Your task to perform on an android device: toggle airplane mode Image 0: 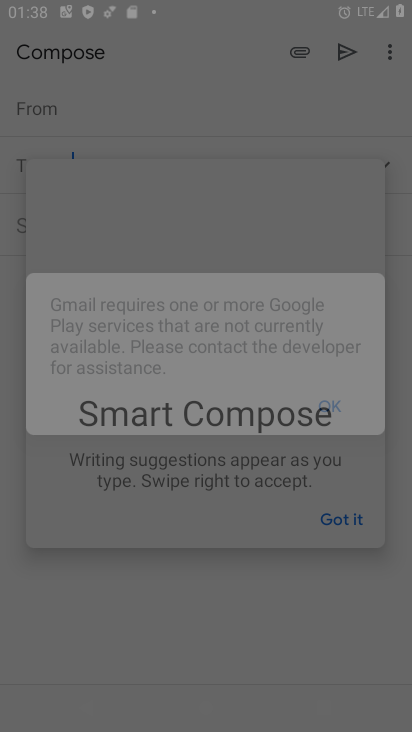
Step 0: drag from (258, 551) to (141, 67)
Your task to perform on an android device: toggle airplane mode Image 1: 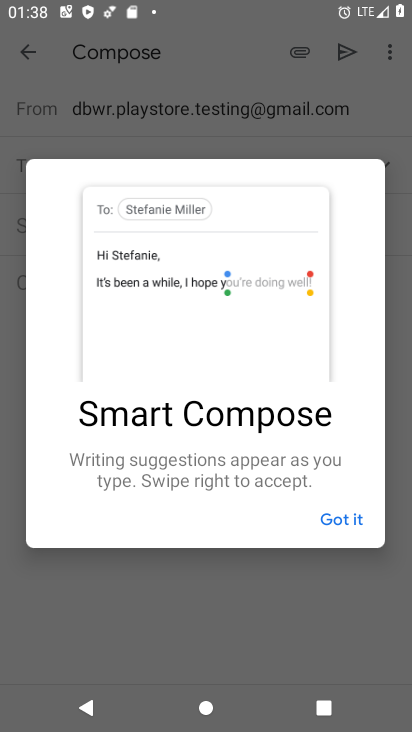
Step 1: press home button
Your task to perform on an android device: toggle airplane mode Image 2: 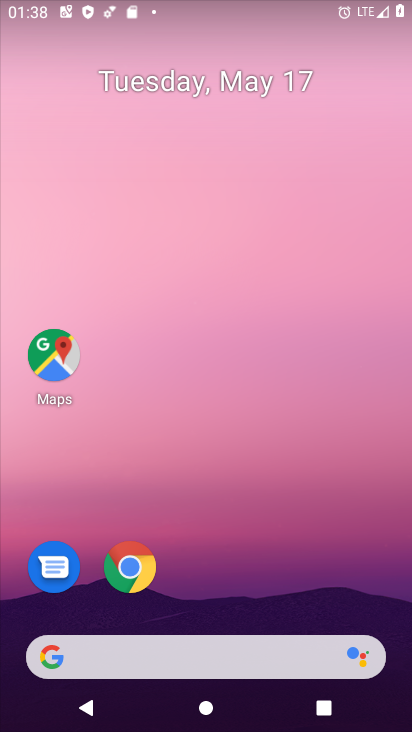
Step 2: drag from (240, 567) to (127, 99)
Your task to perform on an android device: toggle airplane mode Image 3: 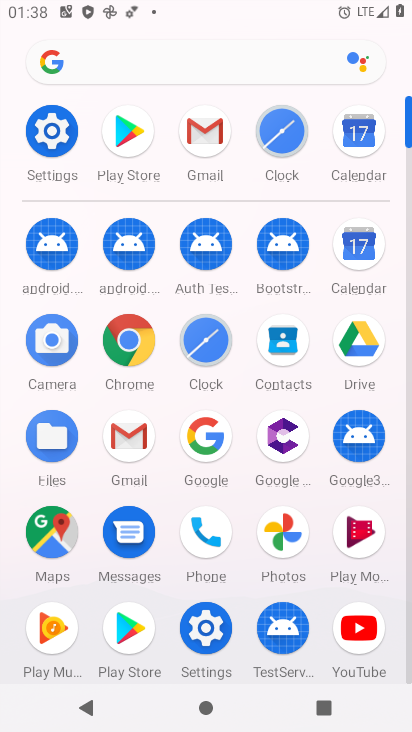
Step 3: click (41, 132)
Your task to perform on an android device: toggle airplane mode Image 4: 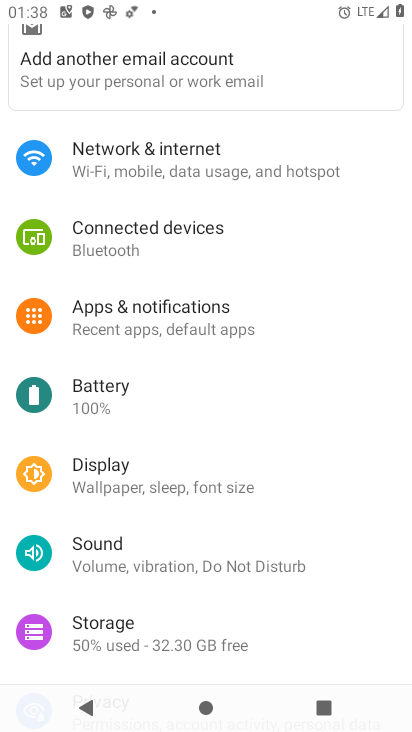
Step 4: click (163, 145)
Your task to perform on an android device: toggle airplane mode Image 5: 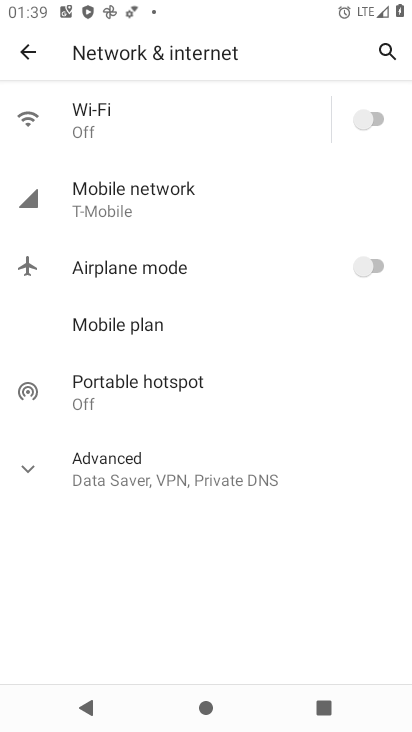
Step 5: click (353, 251)
Your task to perform on an android device: toggle airplane mode Image 6: 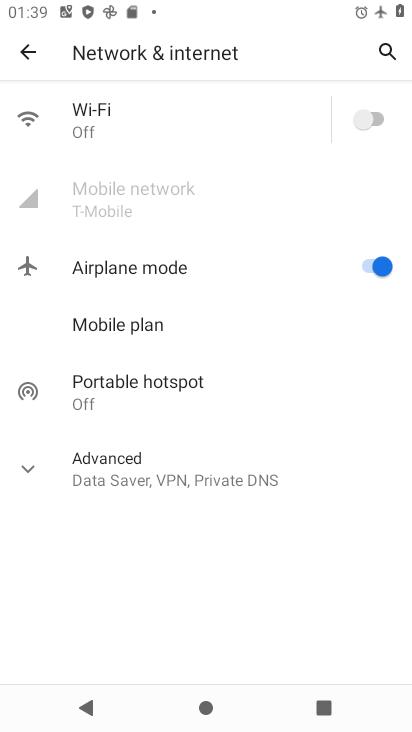
Step 6: task complete